Your task to perform on an android device: toggle airplane mode Image 0: 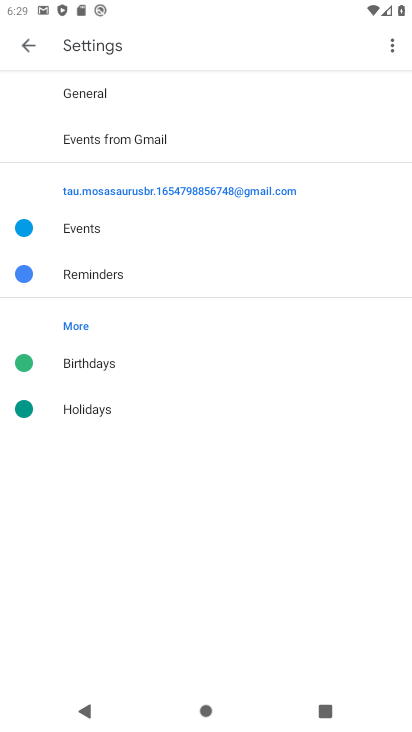
Step 0: press home button
Your task to perform on an android device: toggle airplane mode Image 1: 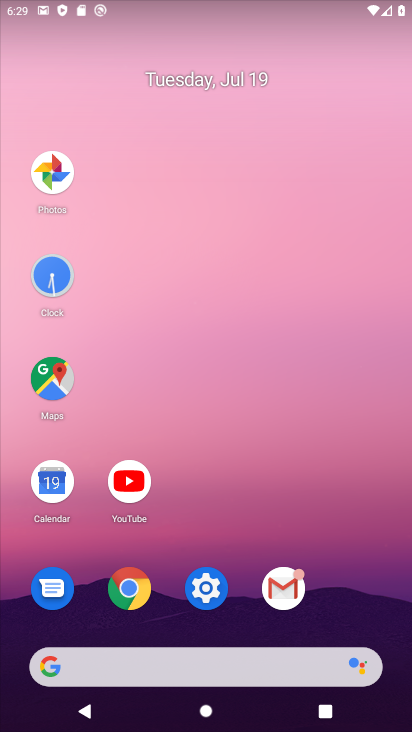
Step 1: click (208, 587)
Your task to perform on an android device: toggle airplane mode Image 2: 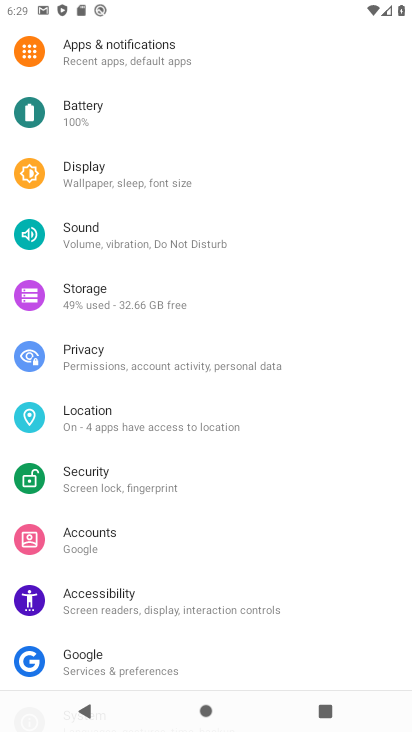
Step 2: drag from (310, 180) to (381, 672)
Your task to perform on an android device: toggle airplane mode Image 3: 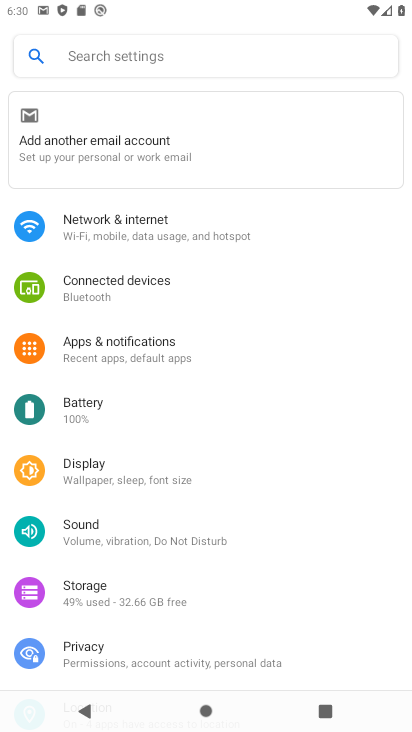
Step 3: click (96, 223)
Your task to perform on an android device: toggle airplane mode Image 4: 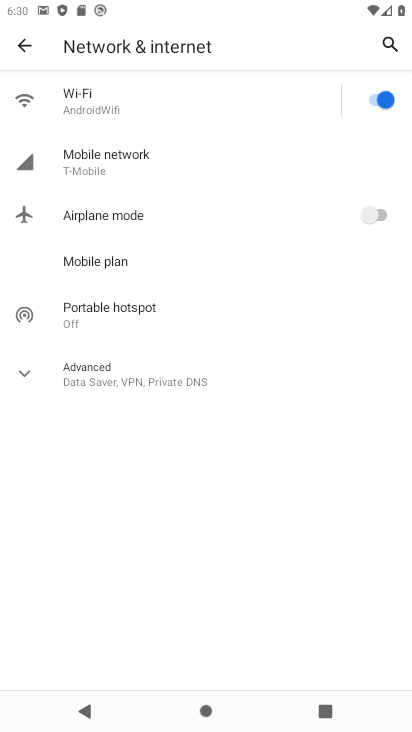
Step 4: click (374, 212)
Your task to perform on an android device: toggle airplane mode Image 5: 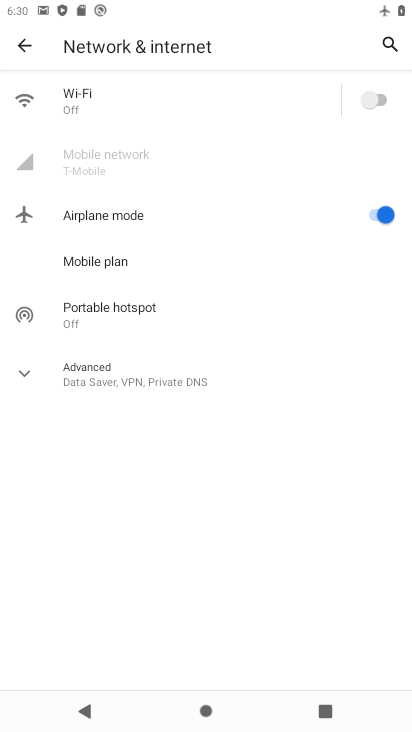
Step 5: task complete